Your task to perform on an android device: choose inbox layout in the gmail app Image 0: 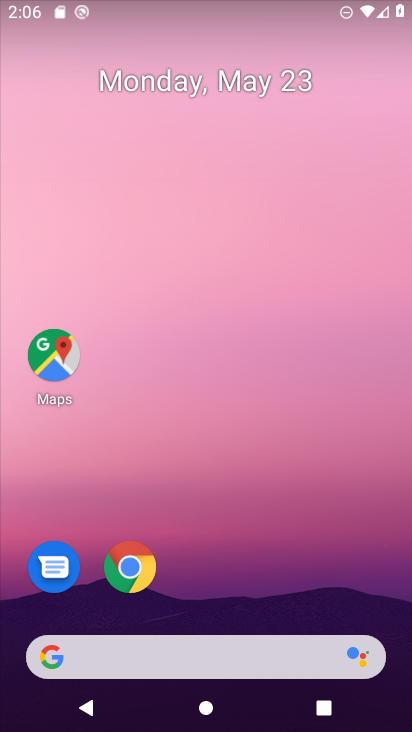
Step 0: drag from (356, 561) to (337, 220)
Your task to perform on an android device: choose inbox layout in the gmail app Image 1: 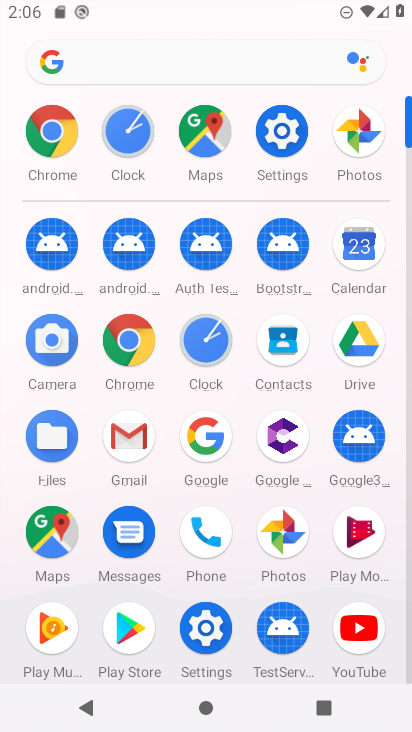
Step 1: drag from (191, 607) to (210, 179)
Your task to perform on an android device: choose inbox layout in the gmail app Image 2: 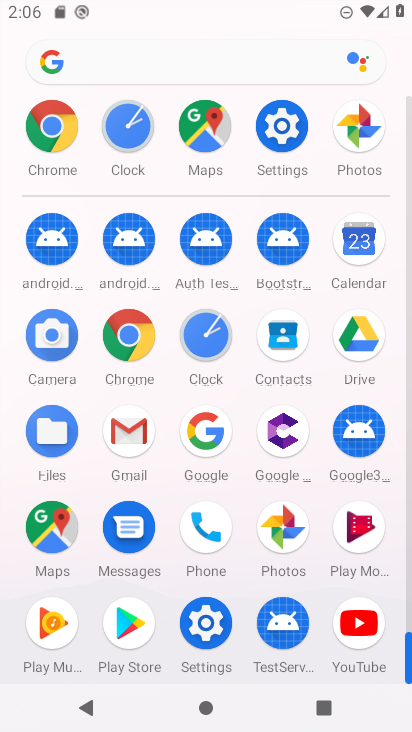
Step 2: click (149, 425)
Your task to perform on an android device: choose inbox layout in the gmail app Image 3: 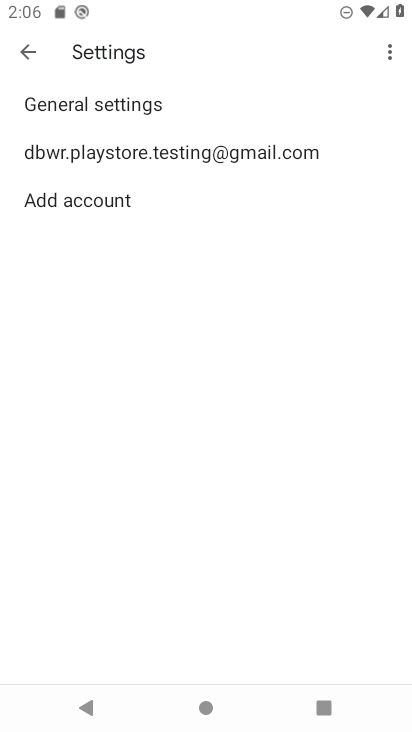
Step 3: click (18, 54)
Your task to perform on an android device: choose inbox layout in the gmail app Image 4: 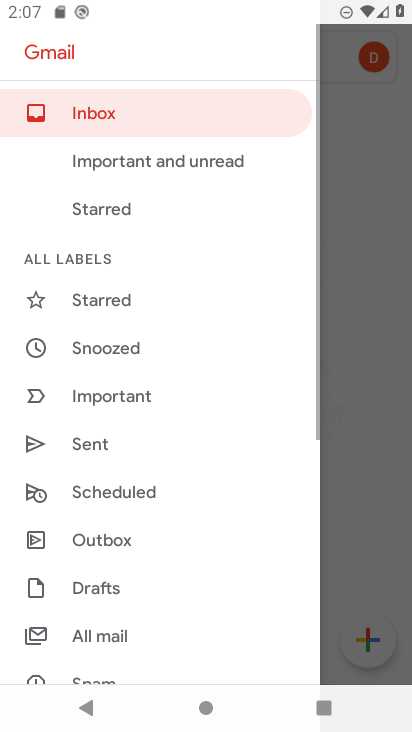
Step 4: drag from (164, 583) to (157, 50)
Your task to perform on an android device: choose inbox layout in the gmail app Image 5: 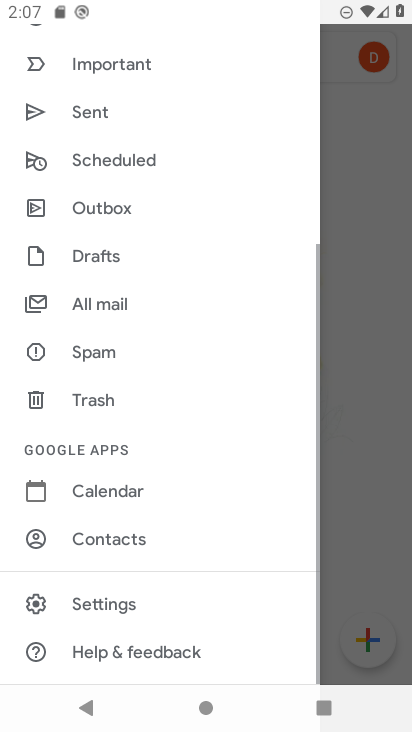
Step 5: click (103, 609)
Your task to perform on an android device: choose inbox layout in the gmail app Image 6: 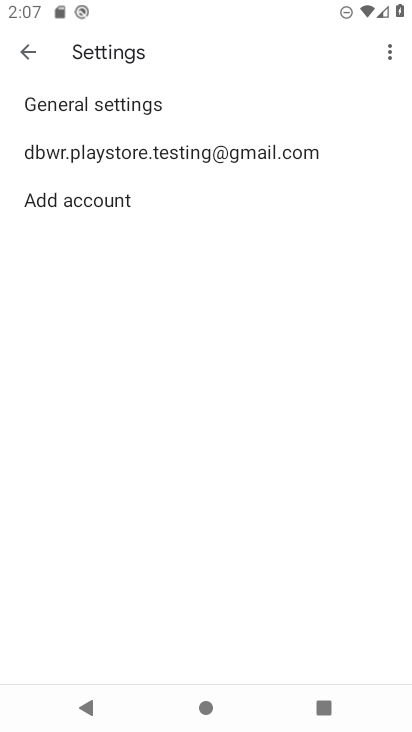
Step 6: click (131, 144)
Your task to perform on an android device: choose inbox layout in the gmail app Image 7: 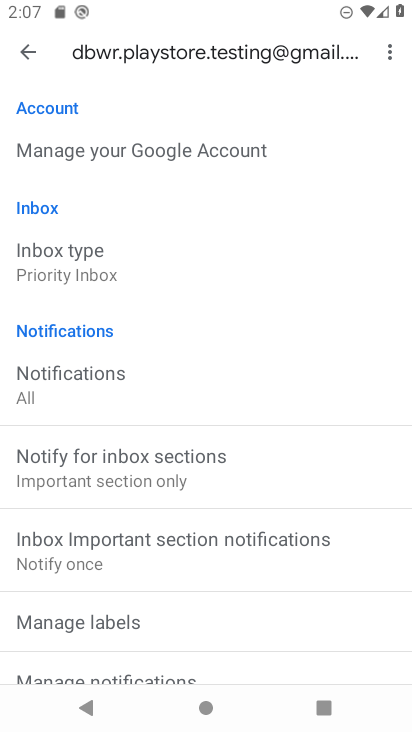
Step 7: click (82, 260)
Your task to perform on an android device: choose inbox layout in the gmail app Image 8: 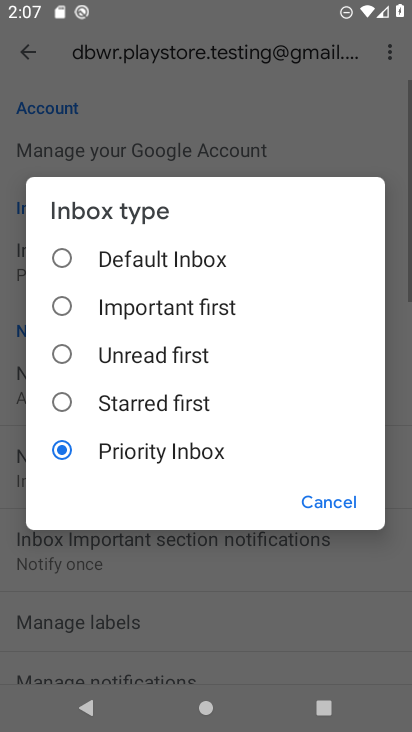
Step 8: click (117, 325)
Your task to perform on an android device: choose inbox layout in the gmail app Image 9: 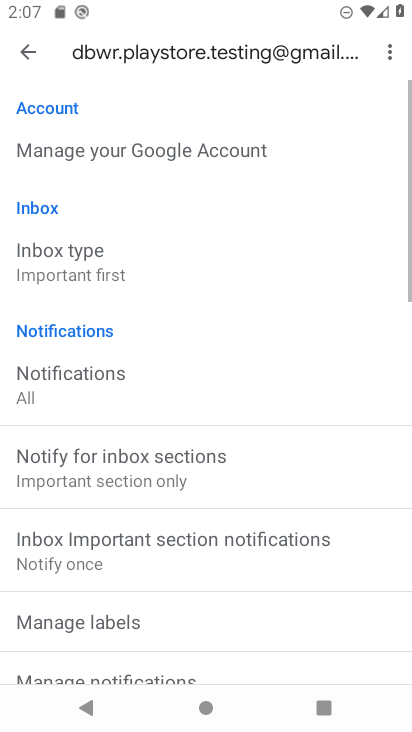
Step 9: task complete